Your task to perform on an android device: Open settings on Google Maps Image 0: 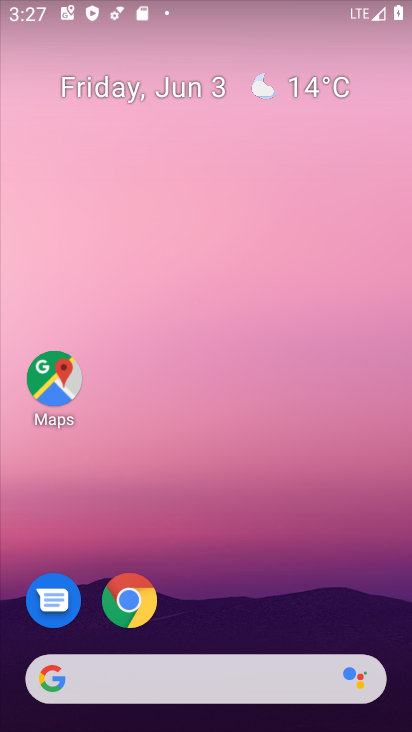
Step 0: click (55, 378)
Your task to perform on an android device: Open settings on Google Maps Image 1: 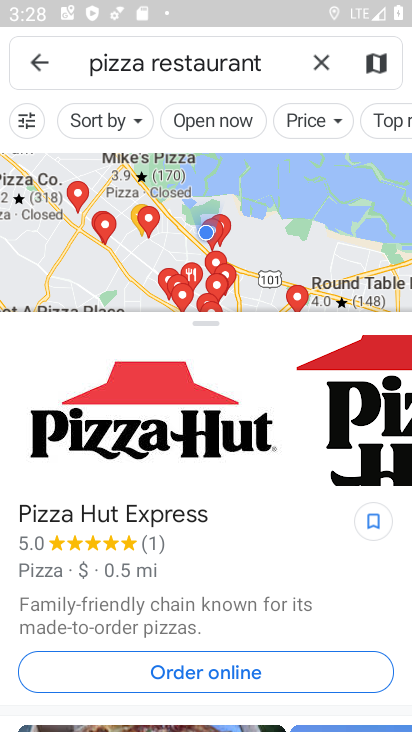
Step 1: click (42, 76)
Your task to perform on an android device: Open settings on Google Maps Image 2: 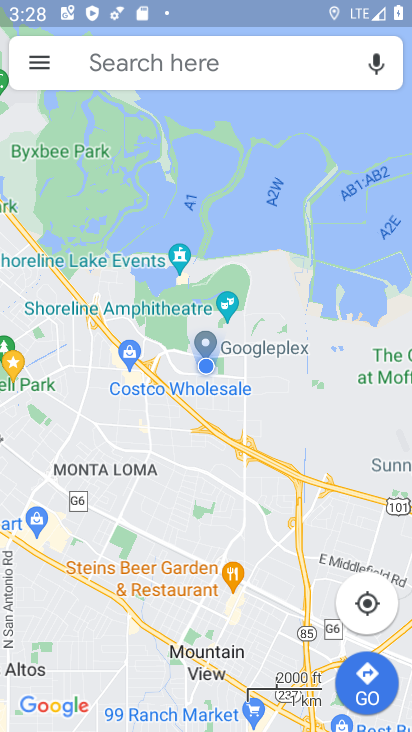
Step 2: click (42, 76)
Your task to perform on an android device: Open settings on Google Maps Image 3: 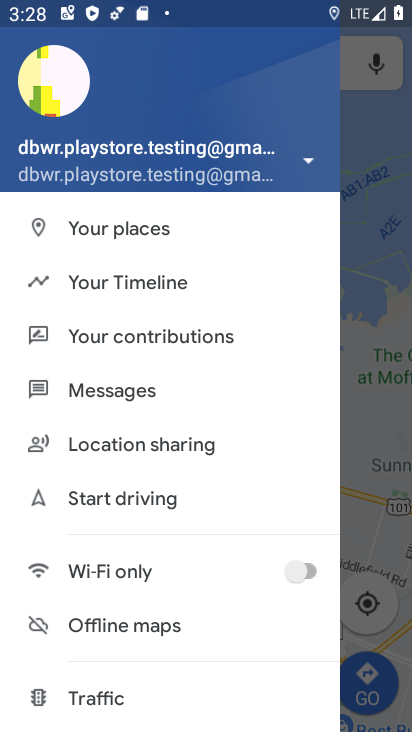
Step 3: drag from (193, 653) to (203, 379)
Your task to perform on an android device: Open settings on Google Maps Image 4: 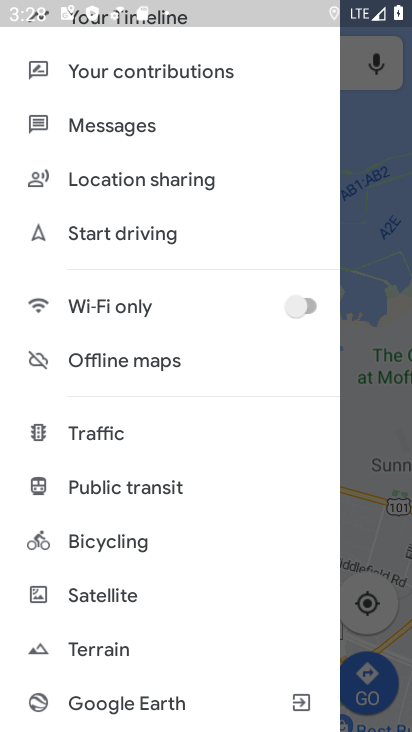
Step 4: drag from (174, 692) to (170, 497)
Your task to perform on an android device: Open settings on Google Maps Image 5: 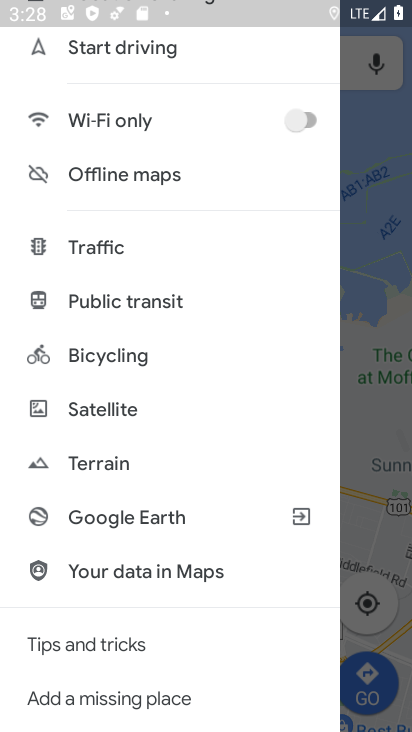
Step 5: drag from (171, 633) to (181, 413)
Your task to perform on an android device: Open settings on Google Maps Image 6: 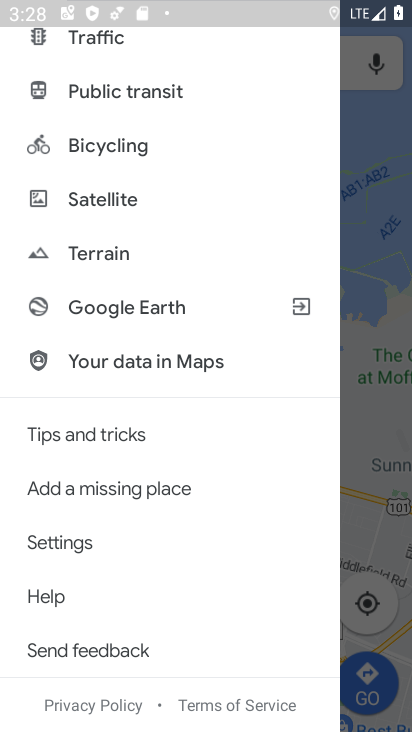
Step 6: click (113, 542)
Your task to perform on an android device: Open settings on Google Maps Image 7: 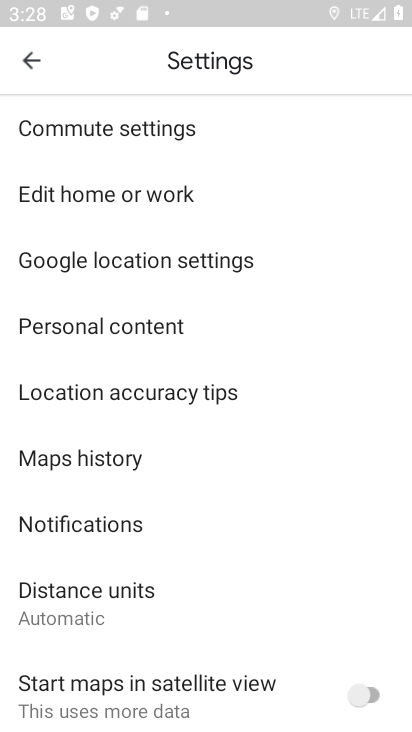
Step 7: task complete